Your task to perform on an android device: Open CNN.com Image 0: 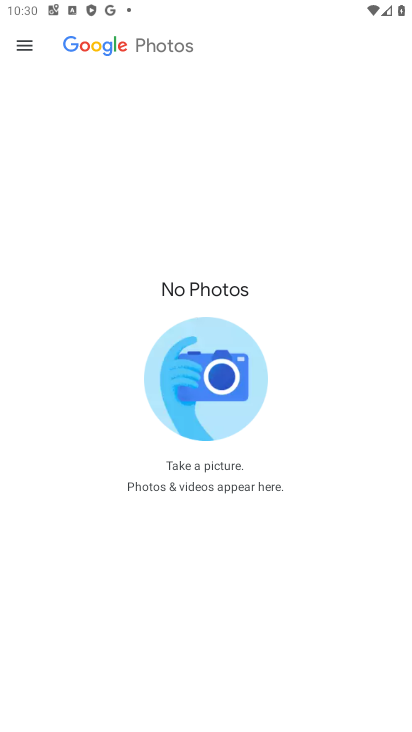
Step 0: press home button
Your task to perform on an android device: Open CNN.com Image 1: 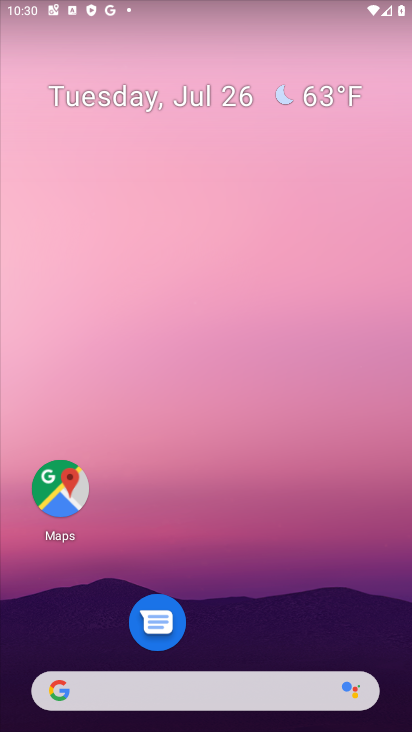
Step 1: drag from (324, 478) to (319, 78)
Your task to perform on an android device: Open CNN.com Image 2: 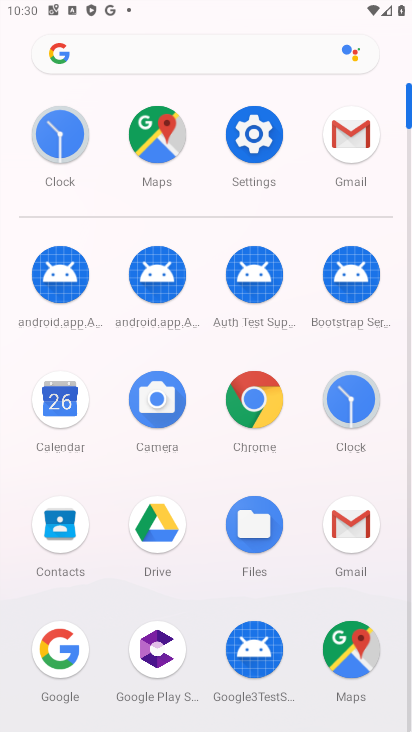
Step 2: click (262, 375)
Your task to perform on an android device: Open CNN.com Image 3: 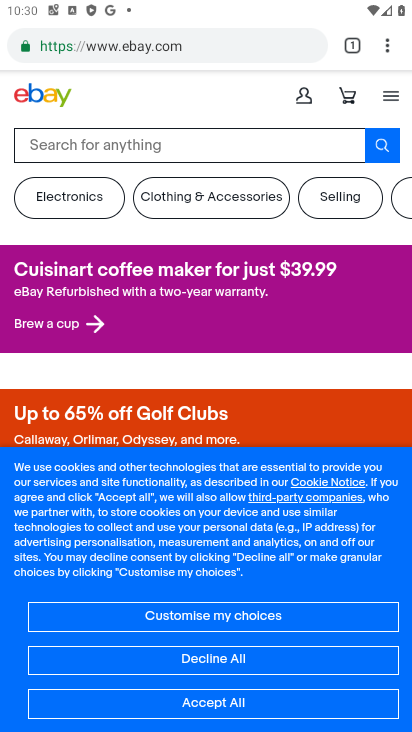
Step 3: click (194, 43)
Your task to perform on an android device: Open CNN.com Image 4: 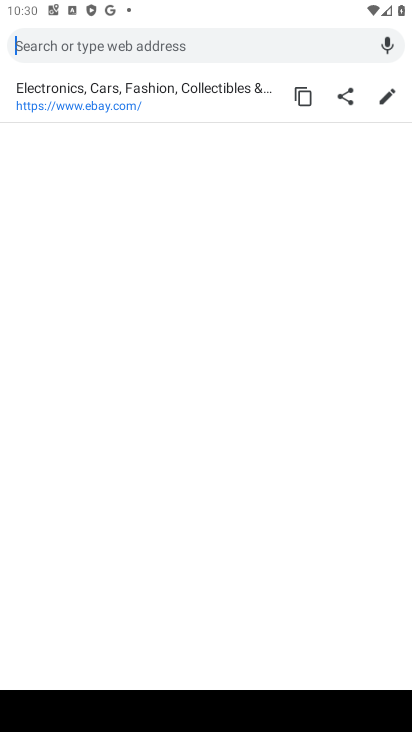
Step 4: drag from (239, 729) to (335, 512)
Your task to perform on an android device: Open CNN.com Image 5: 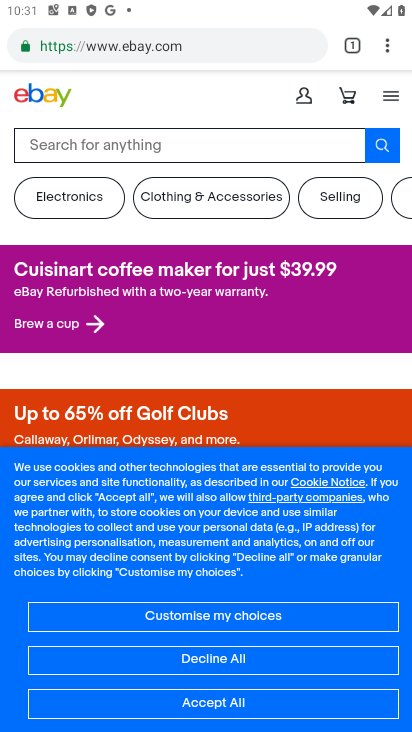
Step 5: type " CNN.com"
Your task to perform on an android device: Open CNN.com Image 6: 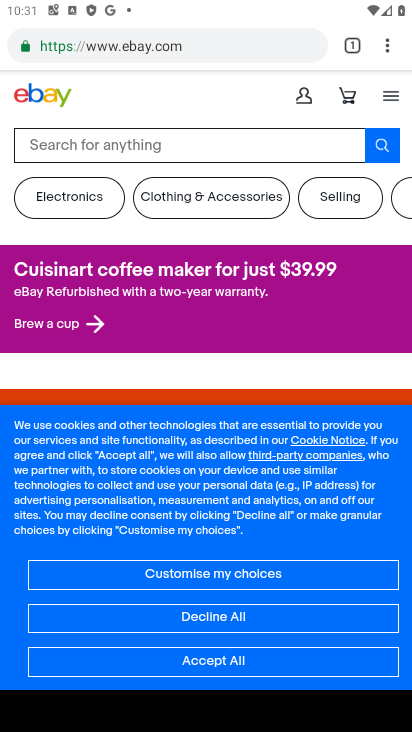
Step 6: click (238, 52)
Your task to perform on an android device: Open CNN.com Image 7: 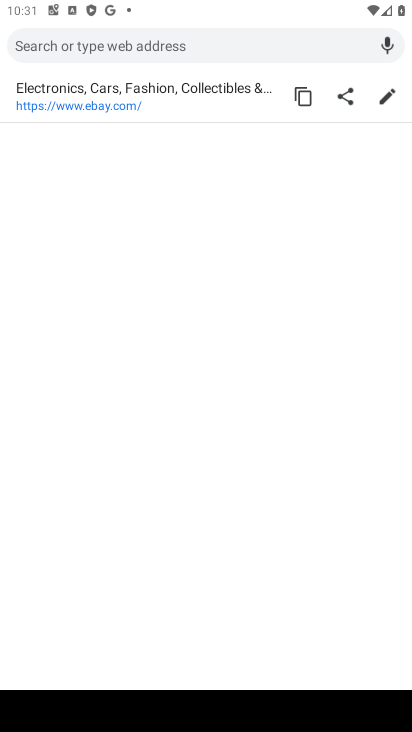
Step 7: type "CNN.com"
Your task to perform on an android device: Open CNN.com Image 8: 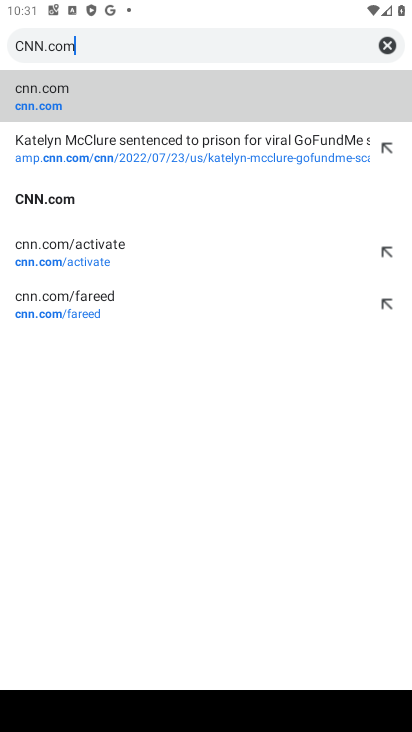
Step 8: click (34, 107)
Your task to perform on an android device: Open CNN.com Image 9: 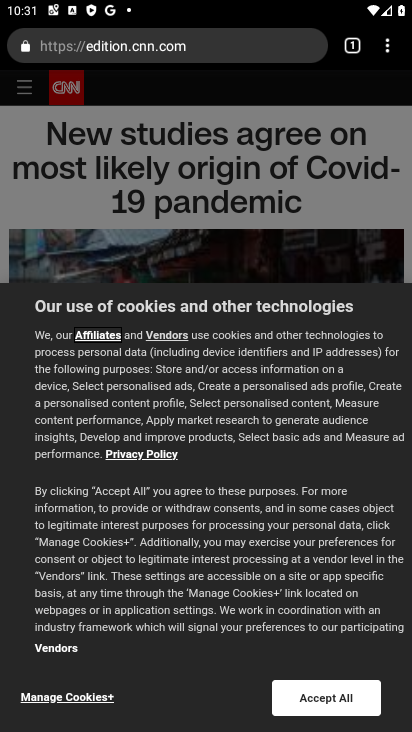
Step 9: task complete